Your task to perform on an android device: Search for Mexican restaurants on Maps Image 0: 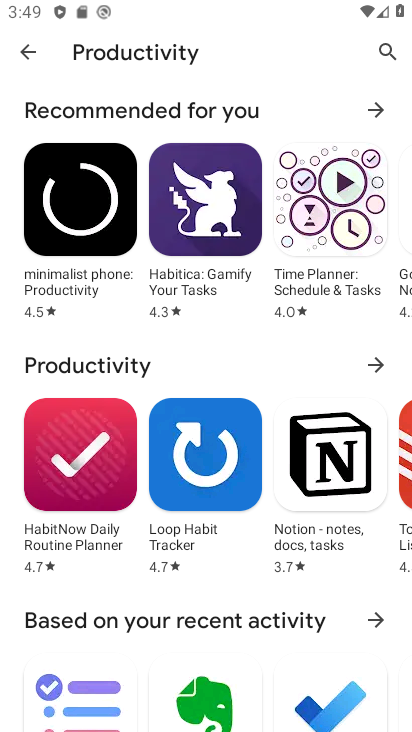
Step 0: press home button
Your task to perform on an android device: Search for Mexican restaurants on Maps Image 1: 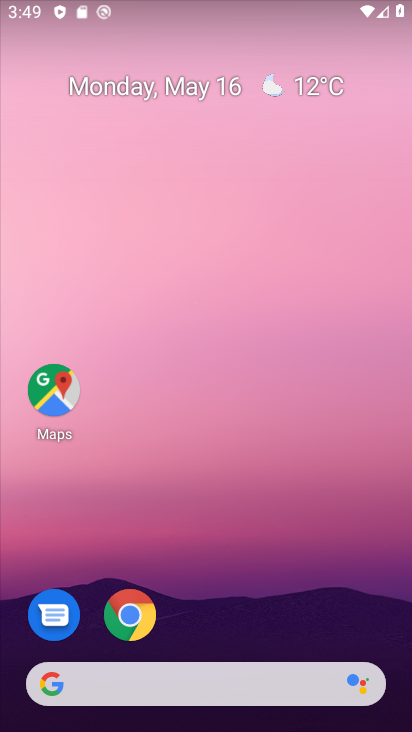
Step 1: drag from (234, 718) to (235, 315)
Your task to perform on an android device: Search for Mexican restaurants on Maps Image 2: 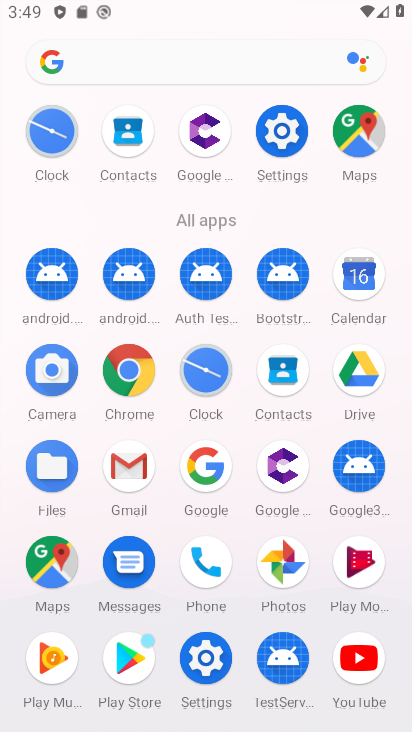
Step 2: click (52, 567)
Your task to perform on an android device: Search for Mexican restaurants on Maps Image 3: 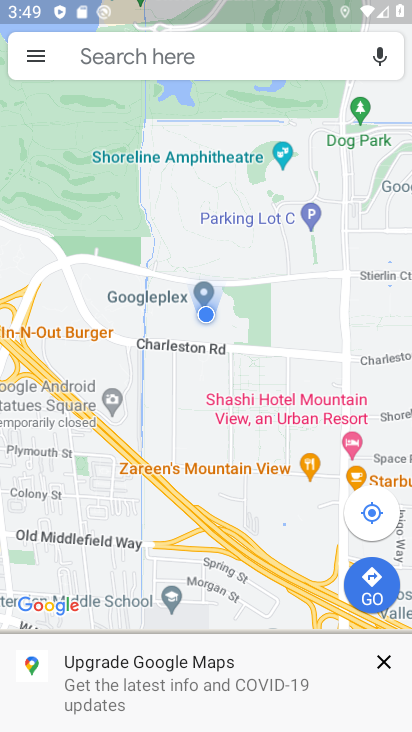
Step 3: click (201, 58)
Your task to perform on an android device: Search for Mexican restaurants on Maps Image 4: 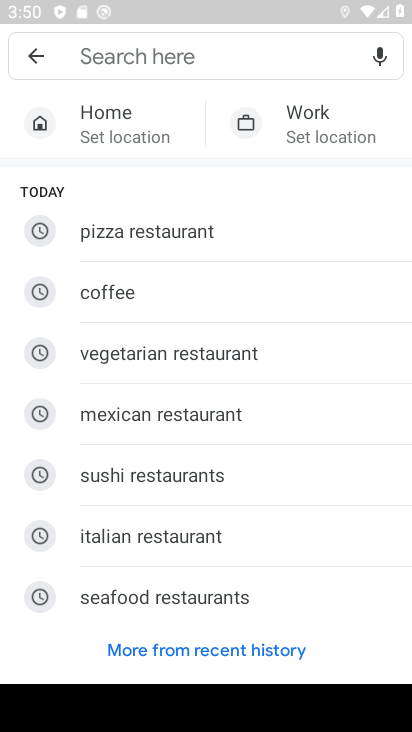
Step 4: type "Mexican restaurants"
Your task to perform on an android device: Search for Mexican restaurants on Maps Image 5: 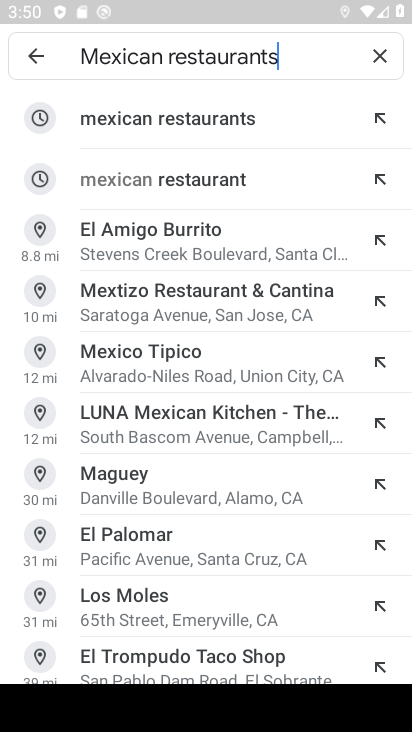
Step 5: click (160, 113)
Your task to perform on an android device: Search for Mexican restaurants on Maps Image 6: 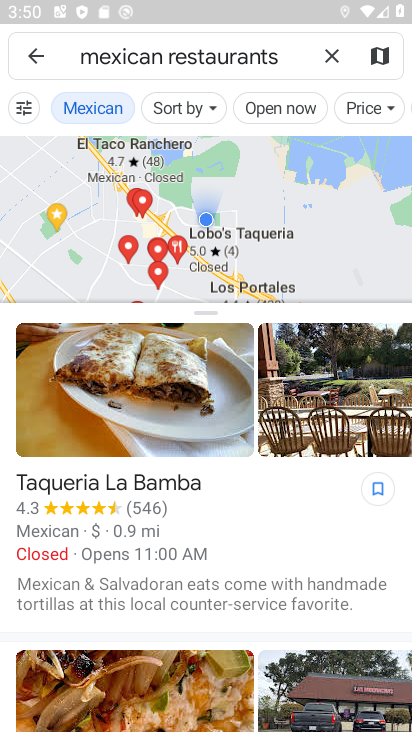
Step 6: task complete